Your task to perform on an android device: add a label to a message in the gmail app Image 0: 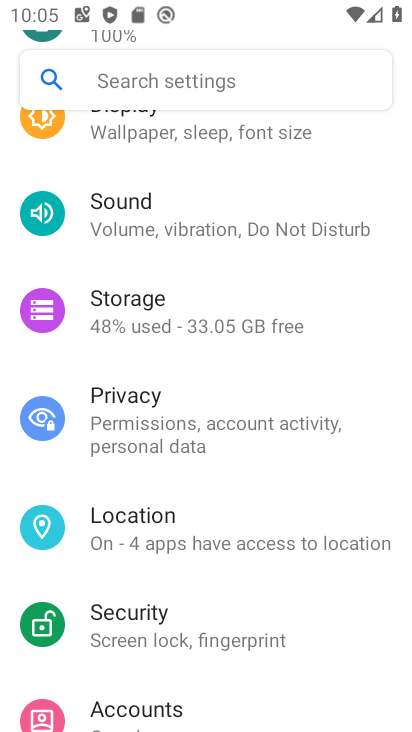
Step 0: press home button
Your task to perform on an android device: add a label to a message in the gmail app Image 1: 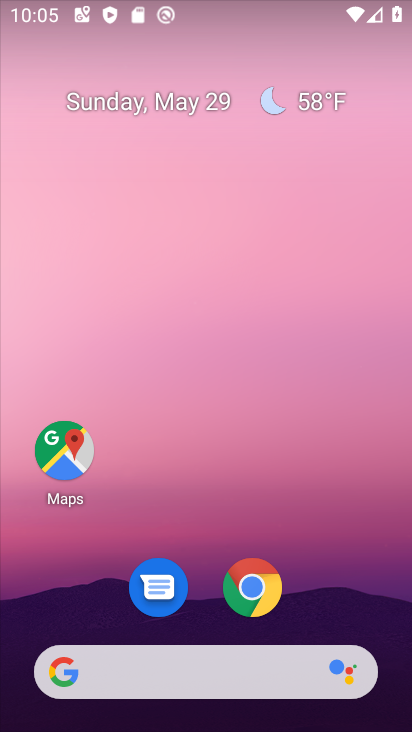
Step 1: drag from (370, 622) to (294, 258)
Your task to perform on an android device: add a label to a message in the gmail app Image 2: 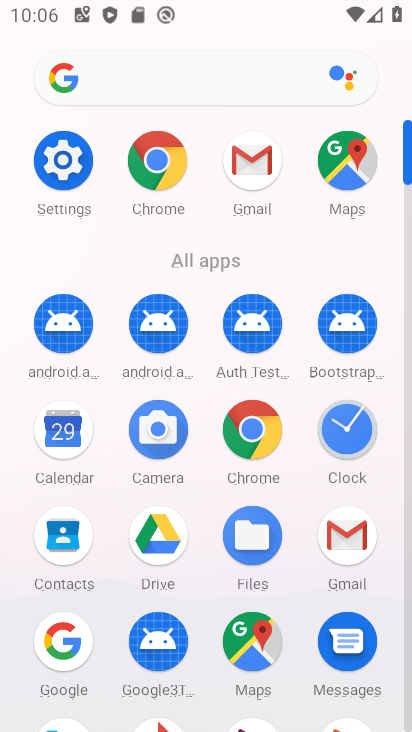
Step 2: click (252, 165)
Your task to perform on an android device: add a label to a message in the gmail app Image 3: 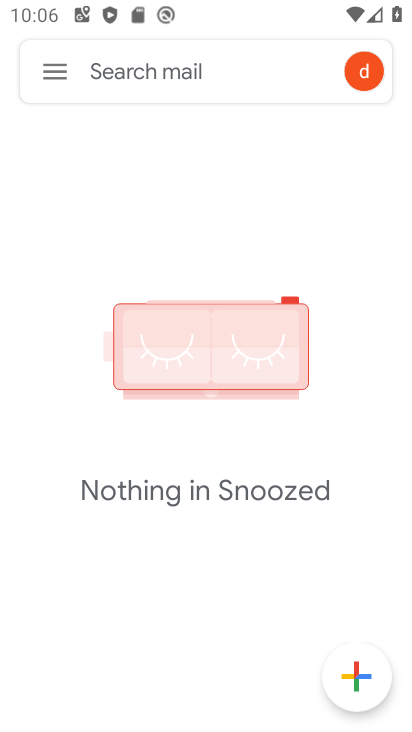
Step 3: click (59, 80)
Your task to perform on an android device: add a label to a message in the gmail app Image 4: 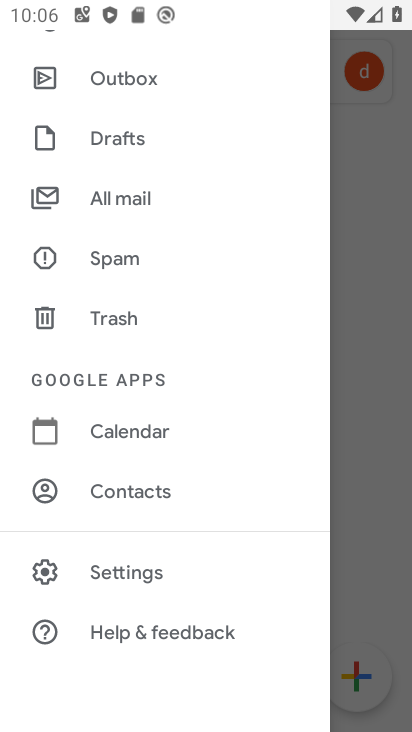
Step 4: click (59, 80)
Your task to perform on an android device: add a label to a message in the gmail app Image 5: 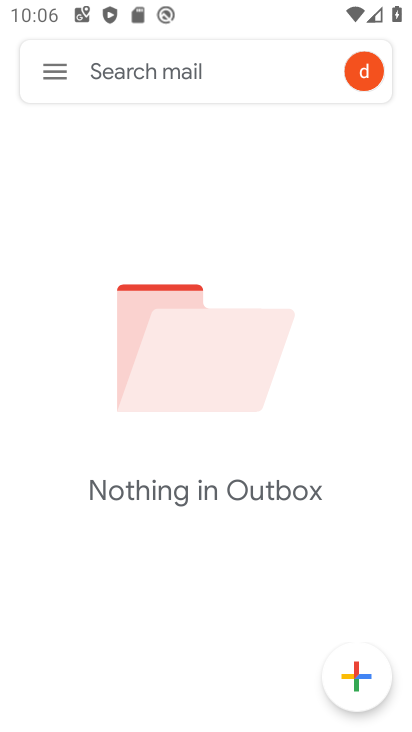
Step 5: click (62, 88)
Your task to perform on an android device: add a label to a message in the gmail app Image 6: 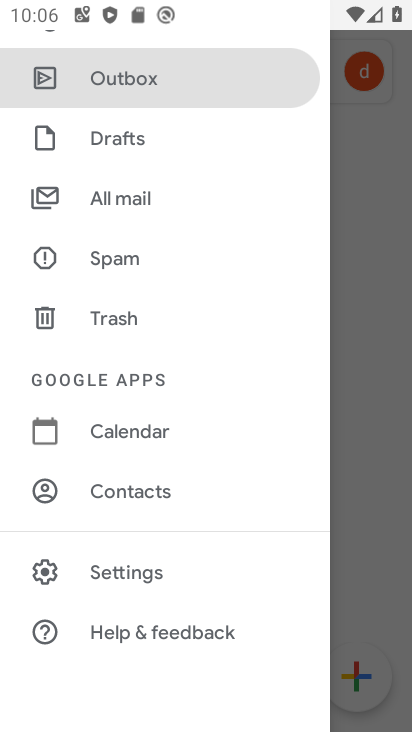
Step 6: click (141, 209)
Your task to perform on an android device: add a label to a message in the gmail app Image 7: 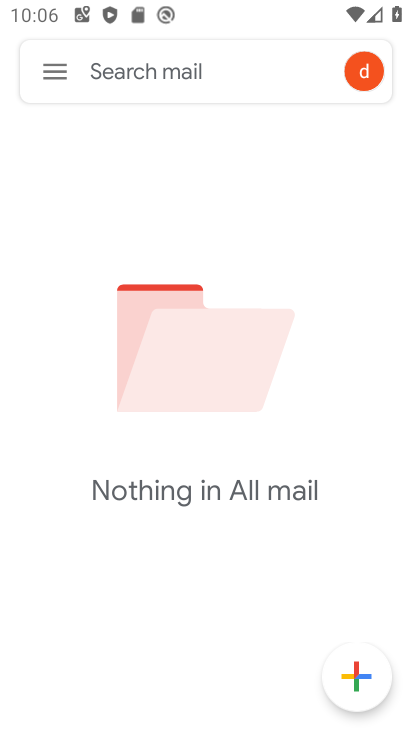
Step 7: task complete